Your task to perform on an android device: Check the weather Image 0: 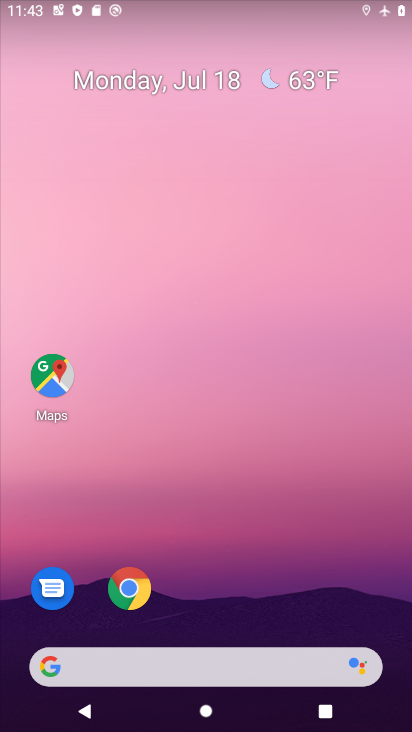
Step 0: drag from (218, 635) to (284, 0)
Your task to perform on an android device: Check the weather Image 1: 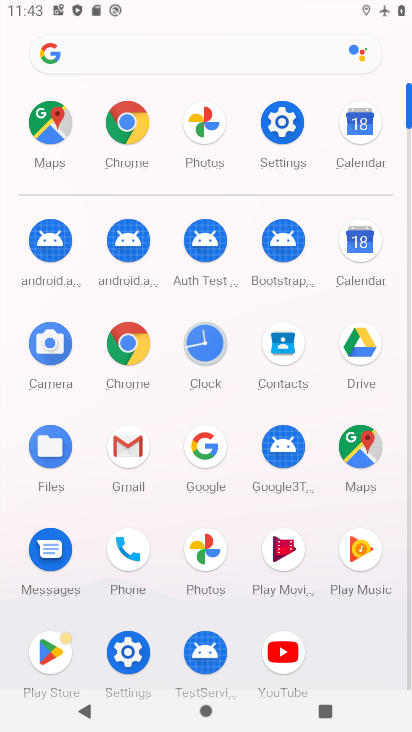
Step 1: click (198, 454)
Your task to perform on an android device: Check the weather Image 2: 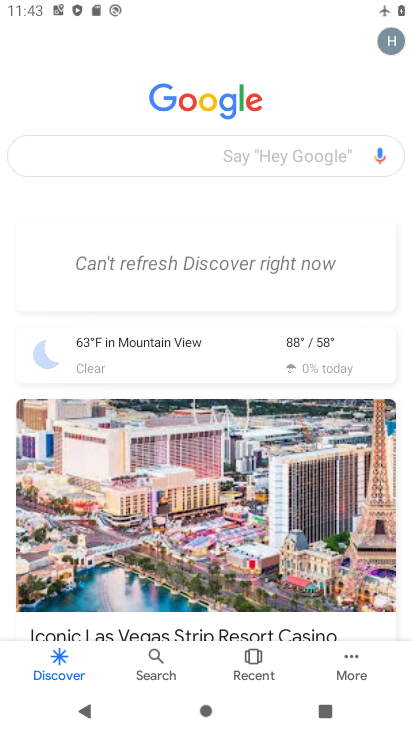
Step 2: click (146, 358)
Your task to perform on an android device: Check the weather Image 3: 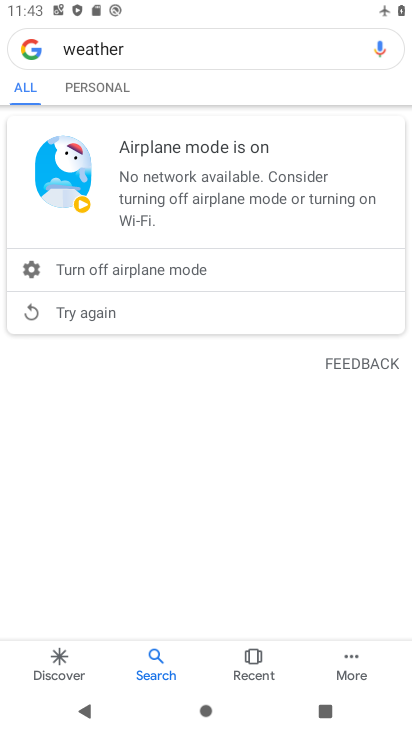
Step 3: task complete